Your task to perform on an android device: Open Chrome and go to settings Image 0: 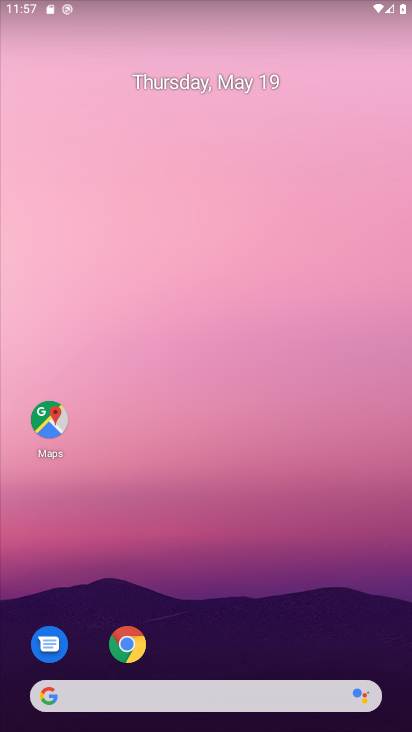
Step 0: click (127, 648)
Your task to perform on an android device: Open Chrome and go to settings Image 1: 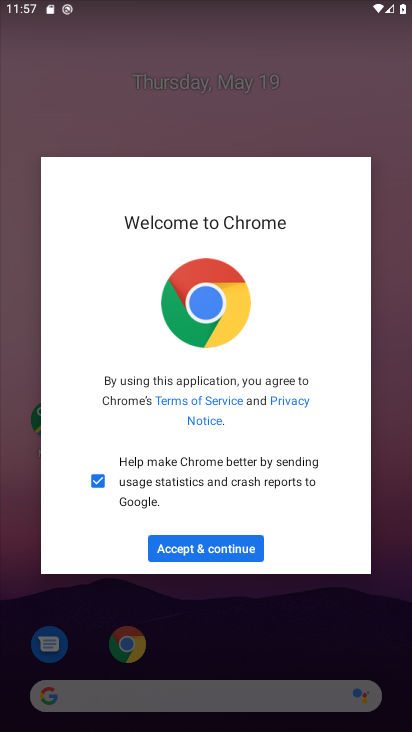
Step 1: click (206, 548)
Your task to perform on an android device: Open Chrome and go to settings Image 2: 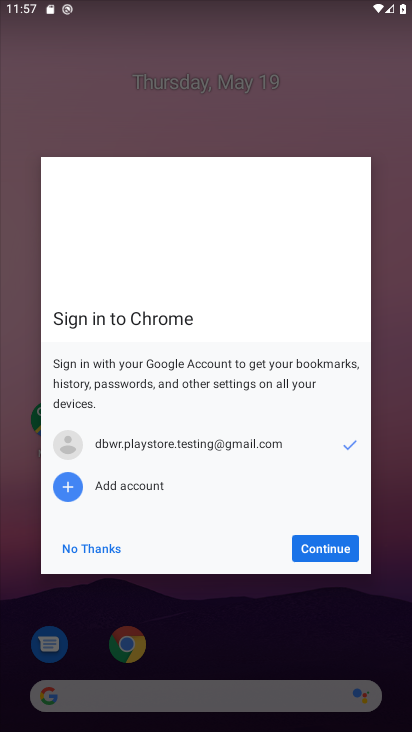
Step 2: click (312, 557)
Your task to perform on an android device: Open Chrome and go to settings Image 3: 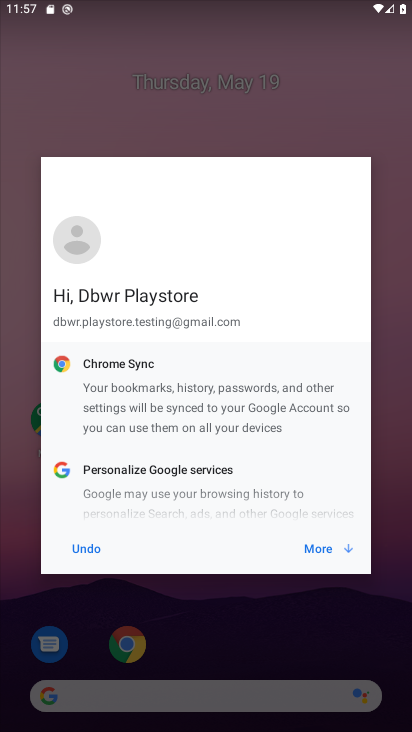
Step 3: click (312, 550)
Your task to perform on an android device: Open Chrome and go to settings Image 4: 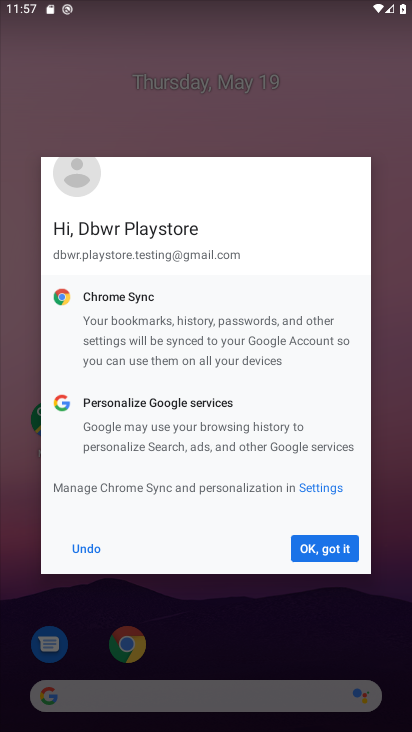
Step 4: click (311, 549)
Your task to perform on an android device: Open Chrome and go to settings Image 5: 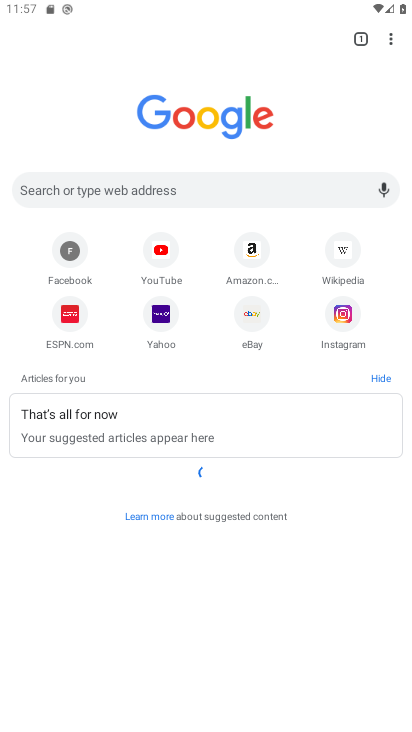
Step 5: click (392, 32)
Your task to perform on an android device: Open Chrome and go to settings Image 6: 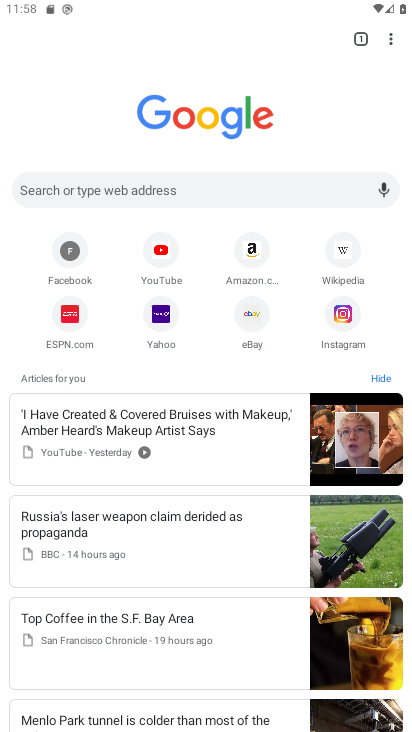
Step 6: click (391, 42)
Your task to perform on an android device: Open Chrome and go to settings Image 7: 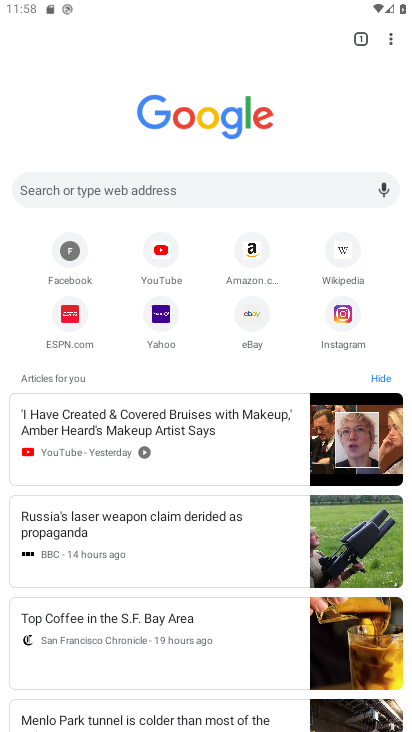
Step 7: click (395, 34)
Your task to perform on an android device: Open Chrome and go to settings Image 8: 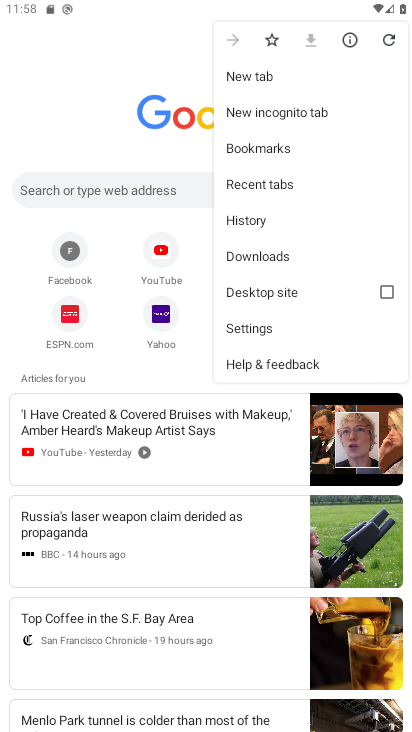
Step 8: click (273, 337)
Your task to perform on an android device: Open Chrome and go to settings Image 9: 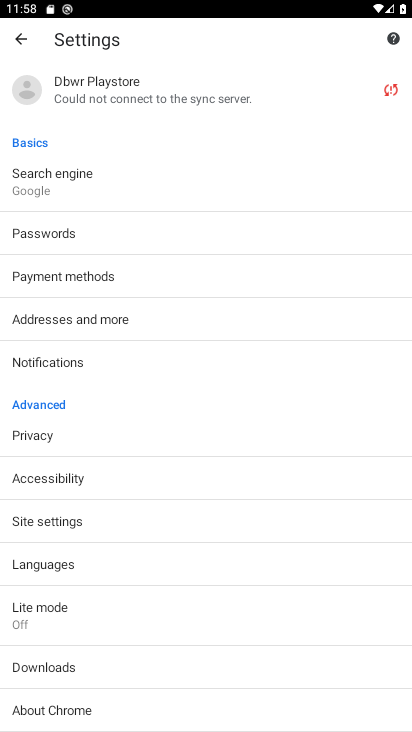
Step 9: task complete